Your task to perform on an android device: move an email to a new category in the gmail app Image 0: 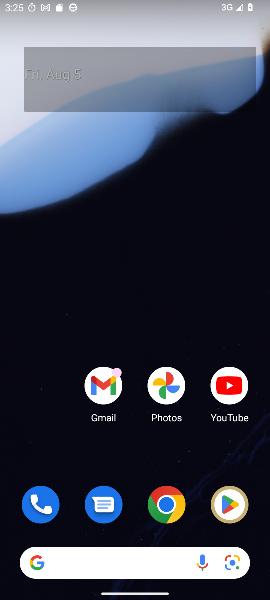
Step 0: drag from (63, 567) to (227, 222)
Your task to perform on an android device: move an email to a new category in the gmail app Image 1: 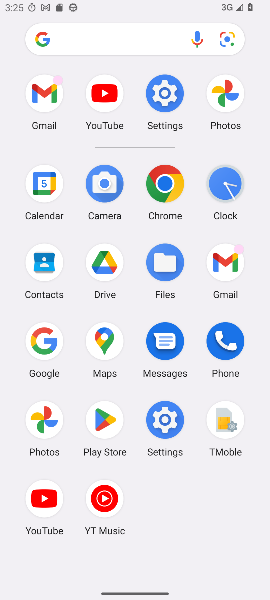
Step 1: click (221, 261)
Your task to perform on an android device: move an email to a new category in the gmail app Image 2: 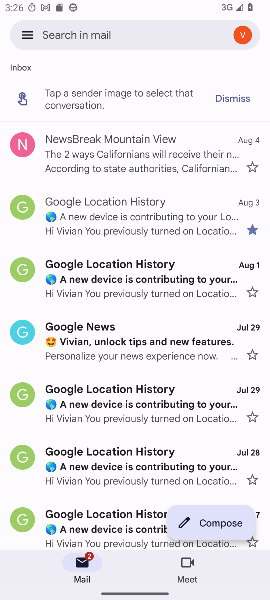
Step 2: click (30, 37)
Your task to perform on an android device: move an email to a new category in the gmail app Image 3: 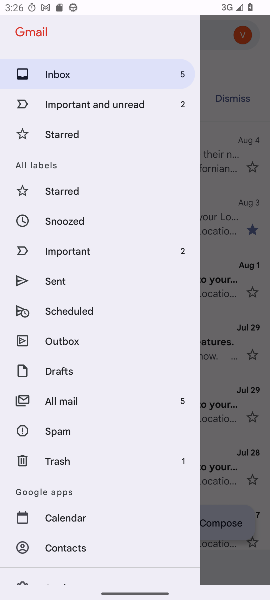
Step 3: click (225, 75)
Your task to perform on an android device: move an email to a new category in the gmail app Image 4: 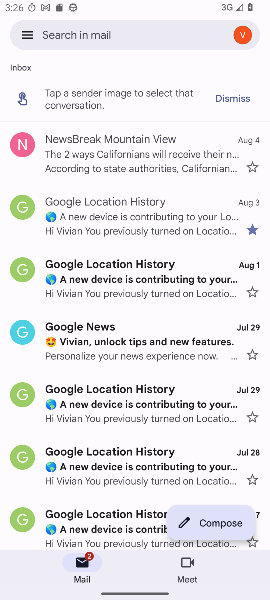
Step 4: task complete